Your task to perform on an android device: change the clock display to digital Image 0: 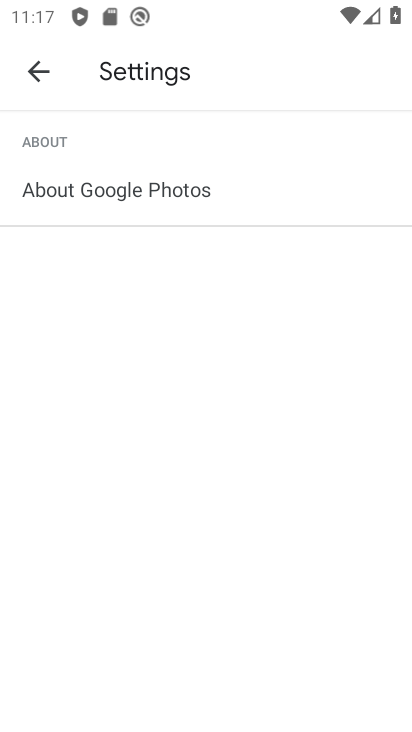
Step 0: press home button
Your task to perform on an android device: change the clock display to digital Image 1: 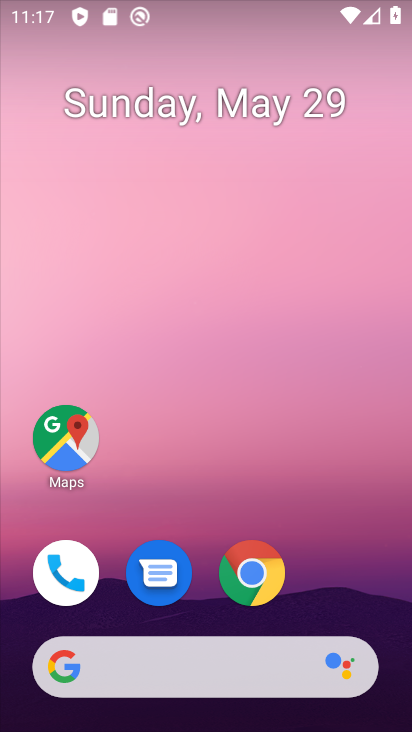
Step 1: drag from (354, 590) to (307, 145)
Your task to perform on an android device: change the clock display to digital Image 2: 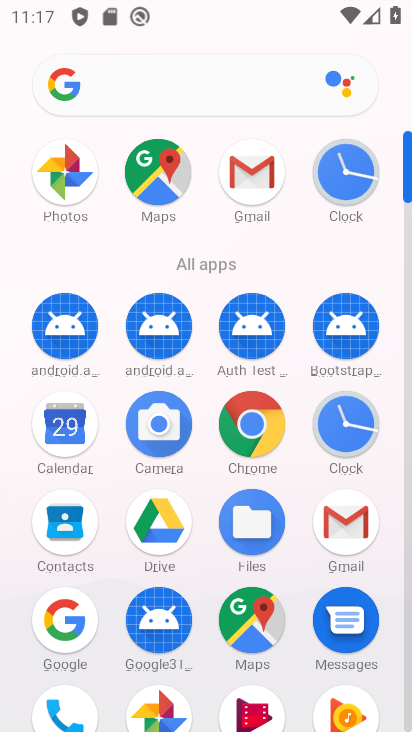
Step 2: click (337, 187)
Your task to perform on an android device: change the clock display to digital Image 3: 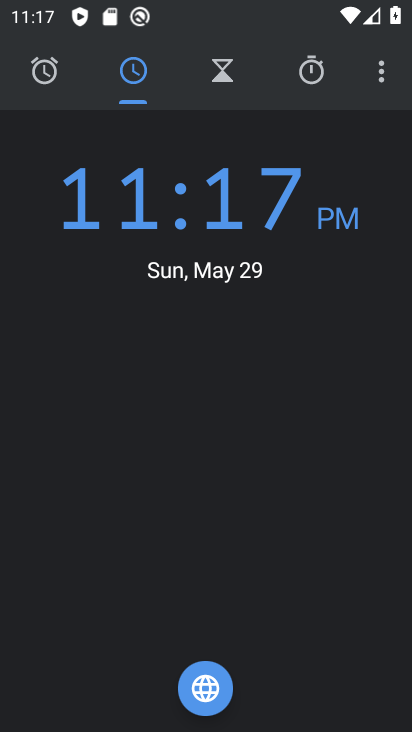
Step 3: click (382, 77)
Your task to perform on an android device: change the clock display to digital Image 4: 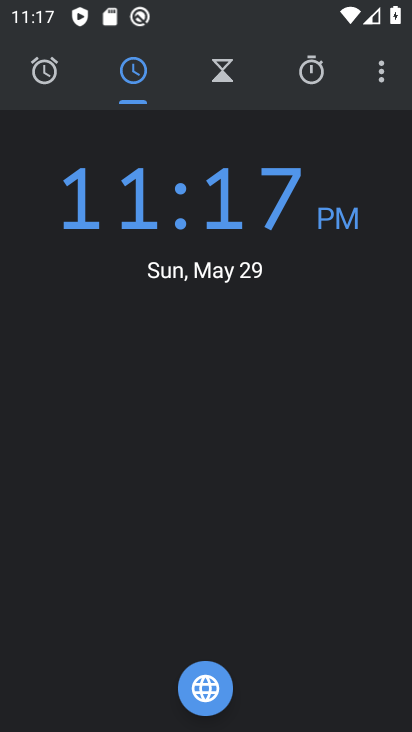
Step 4: click (376, 73)
Your task to perform on an android device: change the clock display to digital Image 5: 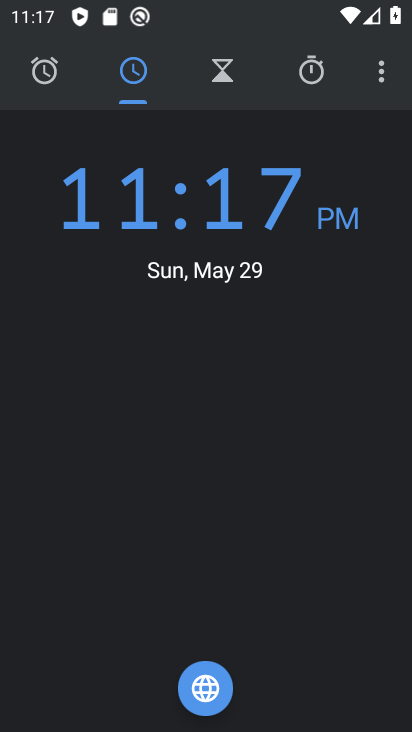
Step 5: click (325, 139)
Your task to perform on an android device: change the clock display to digital Image 6: 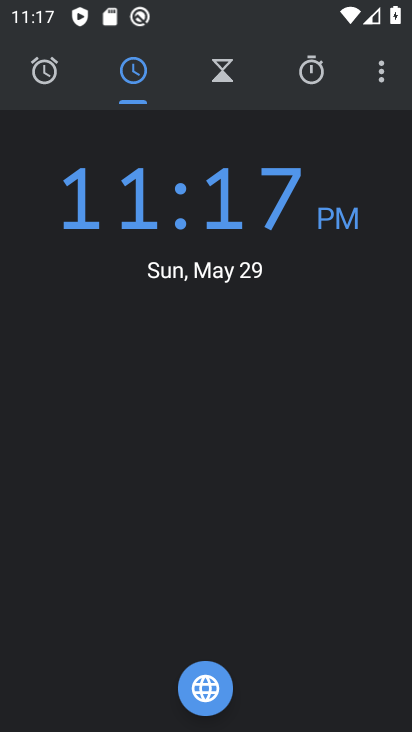
Step 6: click (378, 73)
Your task to perform on an android device: change the clock display to digital Image 7: 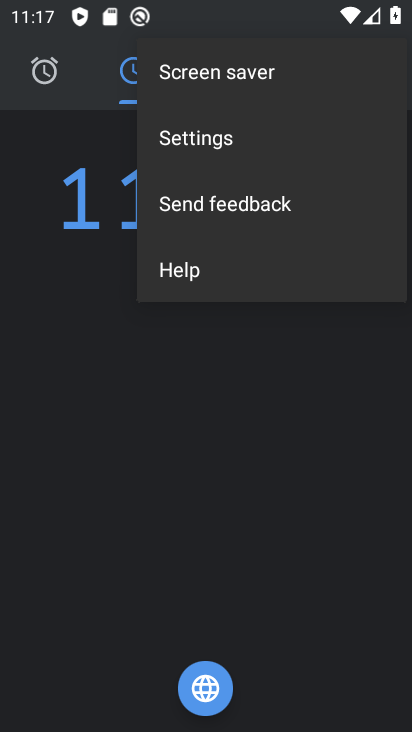
Step 7: click (186, 142)
Your task to perform on an android device: change the clock display to digital Image 8: 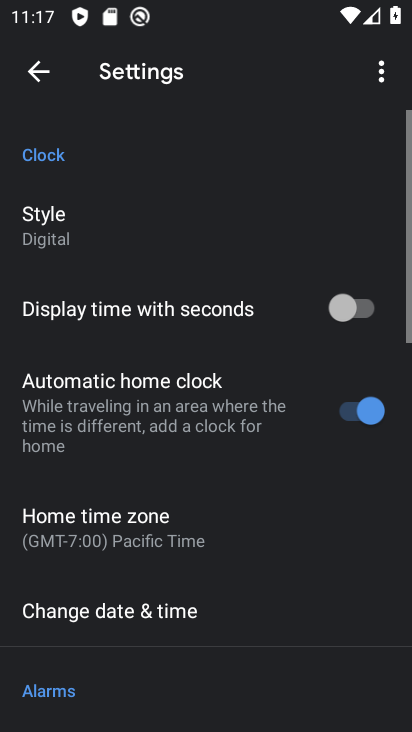
Step 8: click (100, 227)
Your task to perform on an android device: change the clock display to digital Image 9: 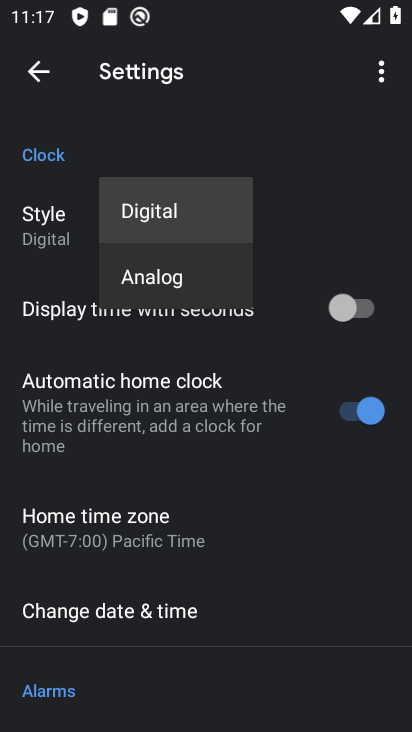
Step 9: task complete